Your task to perform on an android device: open sync settings in chrome Image 0: 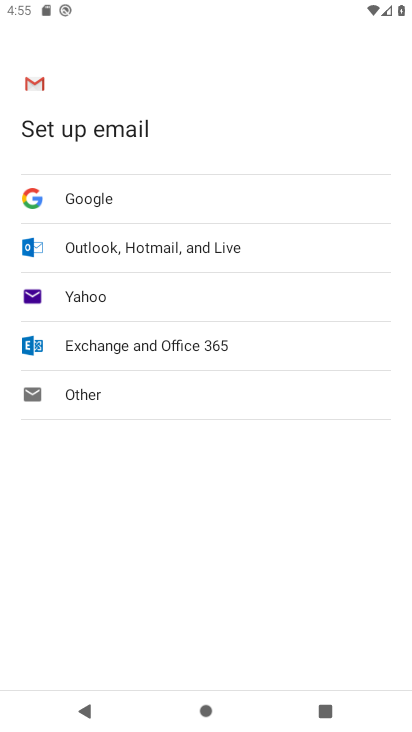
Step 0: press home button
Your task to perform on an android device: open sync settings in chrome Image 1: 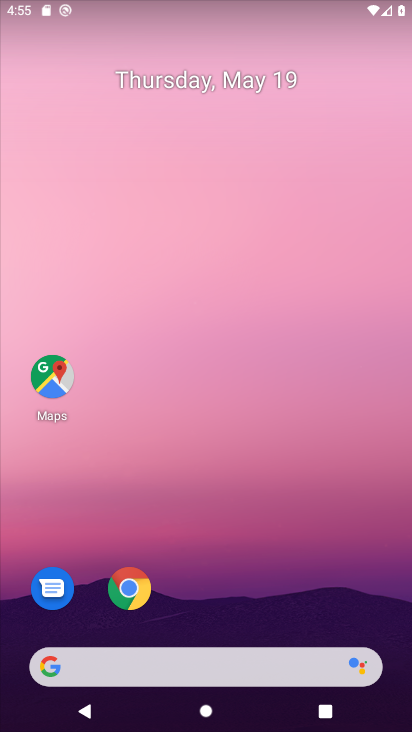
Step 1: drag from (208, 620) to (242, 123)
Your task to perform on an android device: open sync settings in chrome Image 2: 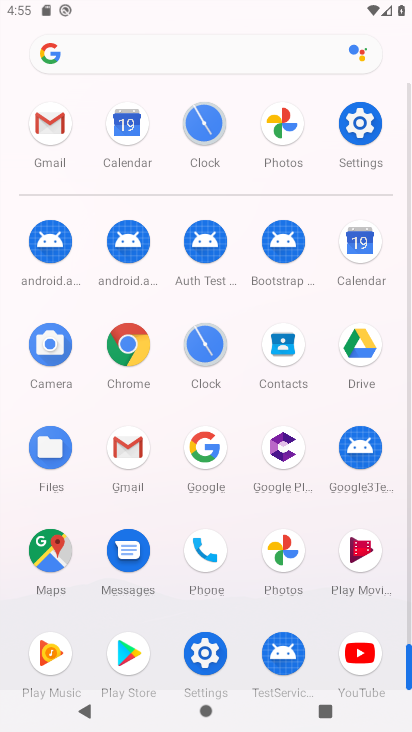
Step 2: click (140, 341)
Your task to perform on an android device: open sync settings in chrome Image 3: 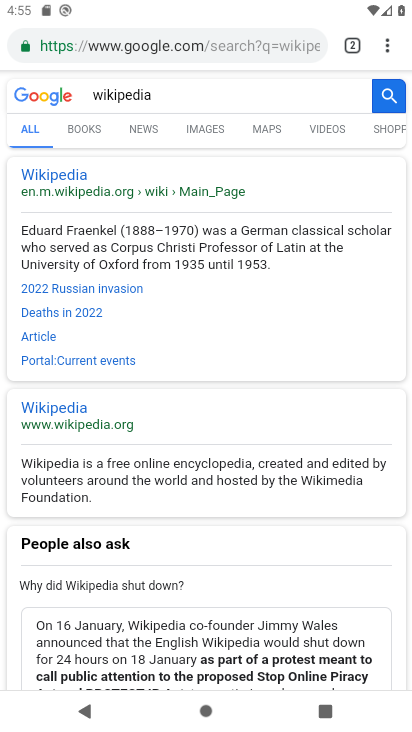
Step 3: click (394, 48)
Your task to perform on an android device: open sync settings in chrome Image 4: 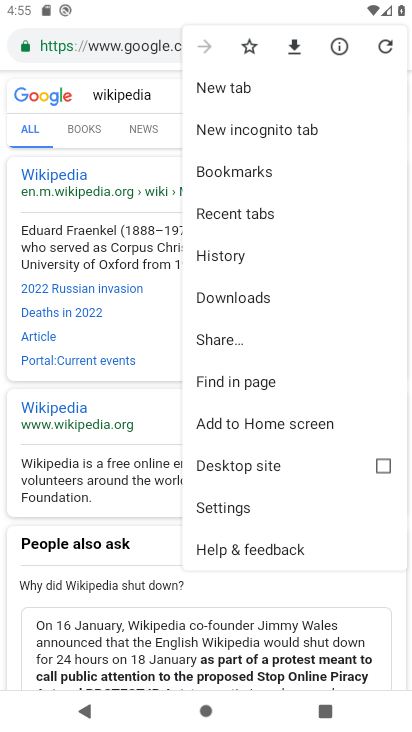
Step 4: click (239, 519)
Your task to perform on an android device: open sync settings in chrome Image 5: 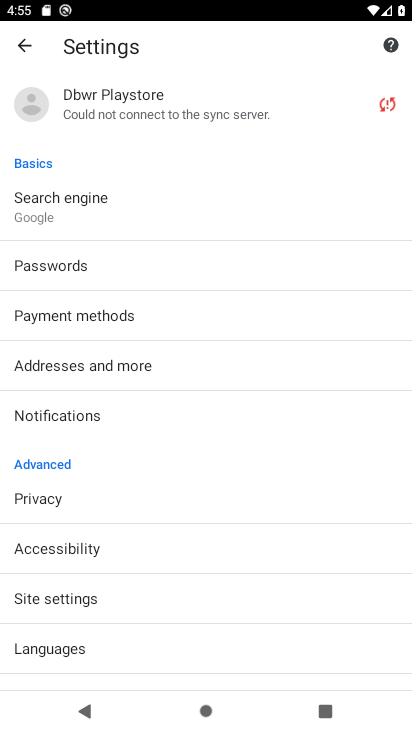
Step 5: click (145, 113)
Your task to perform on an android device: open sync settings in chrome Image 6: 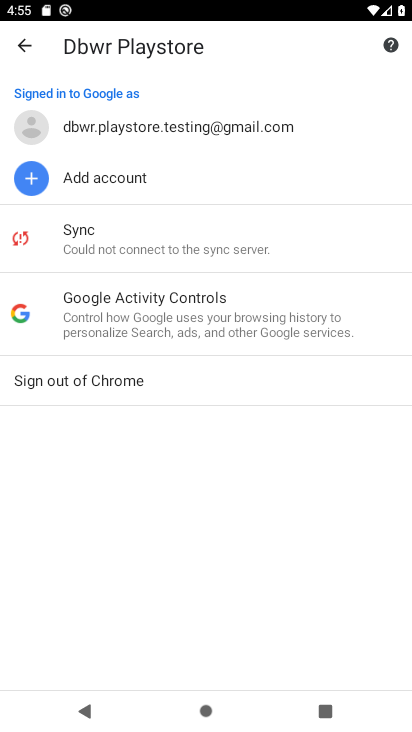
Step 6: click (123, 254)
Your task to perform on an android device: open sync settings in chrome Image 7: 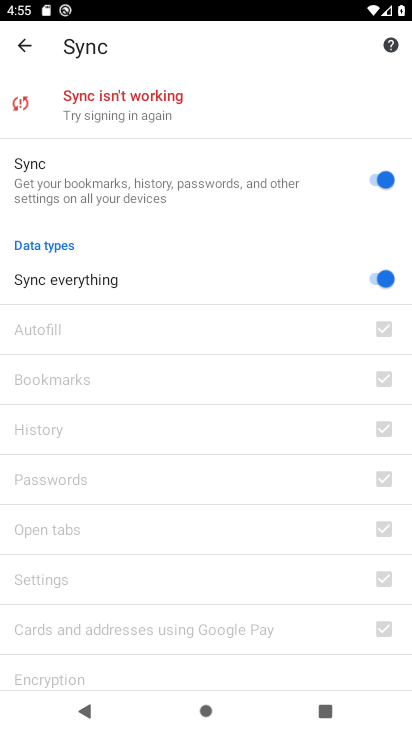
Step 7: click (141, 102)
Your task to perform on an android device: open sync settings in chrome Image 8: 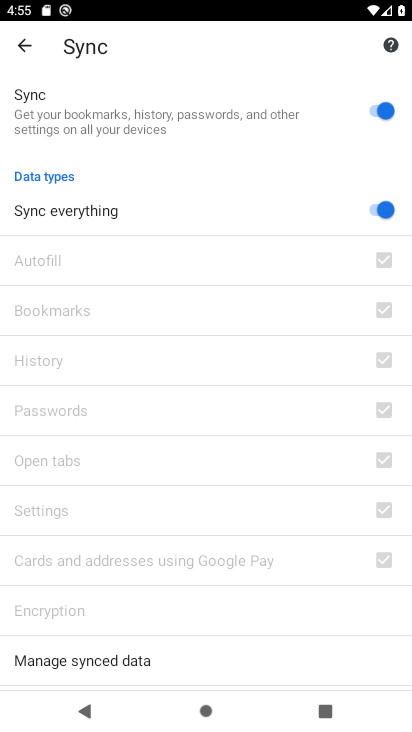
Step 8: task complete